Your task to perform on an android device: change your default location settings in chrome Image 0: 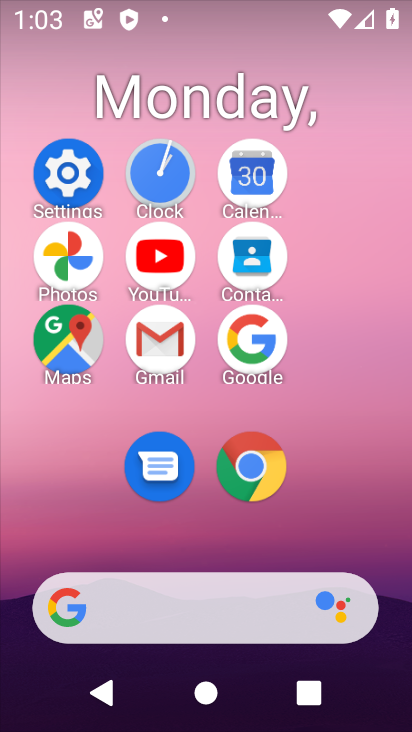
Step 0: click (265, 463)
Your task to perform on an android device: change your default location settings in chrome Image 1: 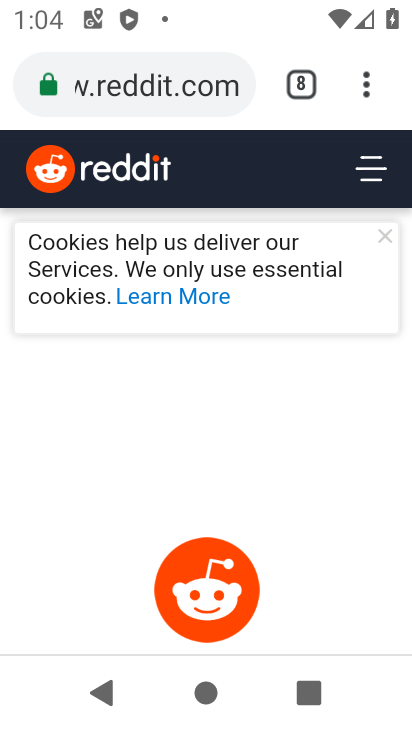
Step 1: click (385, 94)
Your task to perform on an android device: change your default location settings in chrome Image 2: 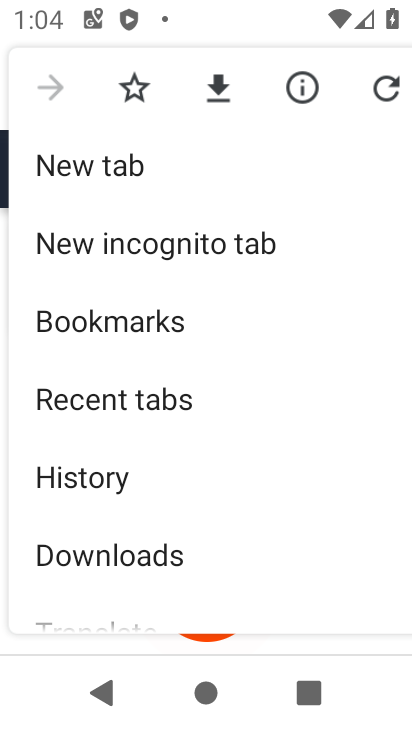
Step 2: drag from (261, 513) to (234, 141)
Your task to perform on an android device: change your default location settings in chrome Image 3: 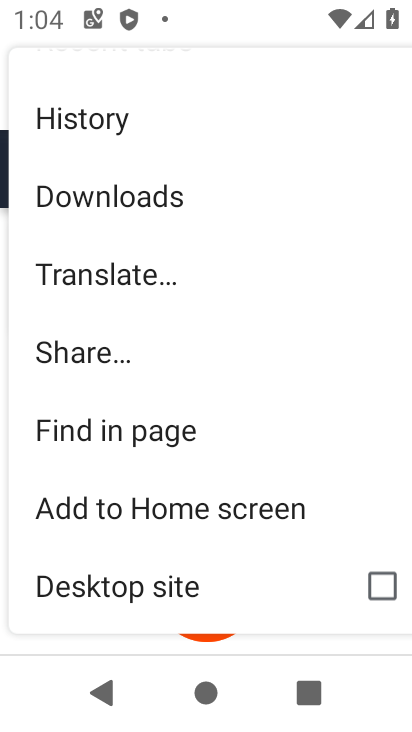
Step 3: drag from (195, 511) to (170, 142)
Your task to perform on an android device: change your default location settings in chrome Image 4: 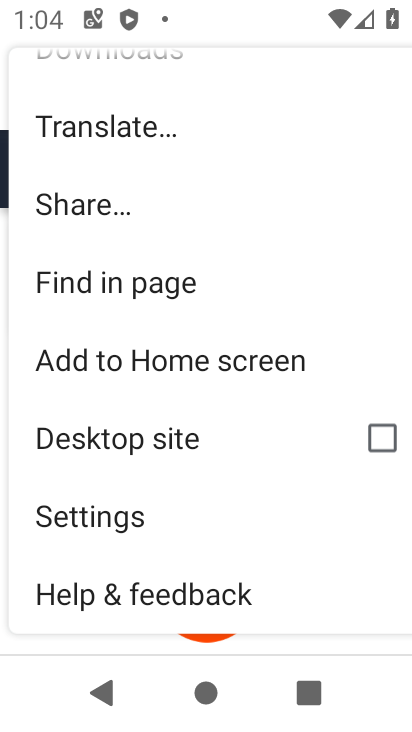
Step 4: click (143, 510)
Your task to perform on an android device: change your default location settings in chrome Image 5: 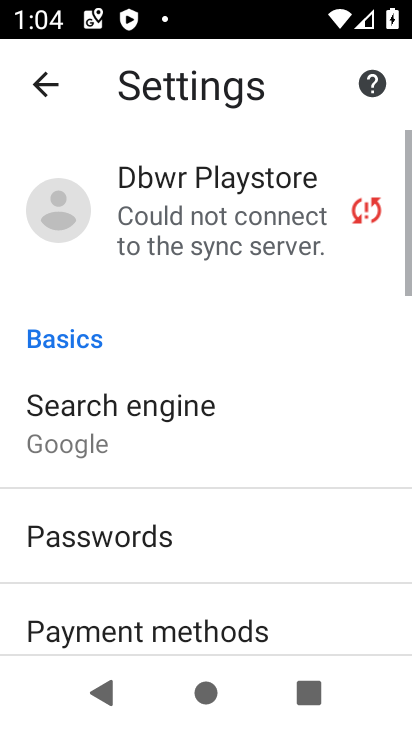
Step 5: drag from (175, 552) to (151, 71)
Your task to perform on an android device: change your default location settings in chrome Image 6: 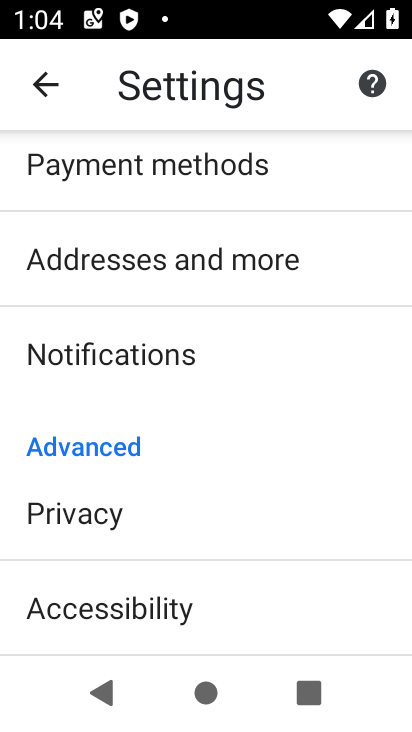
Step 6: drag from (183, 573) to (168, 179)
Your task to perform on an android device: change your default location settings in chrome Image 7: 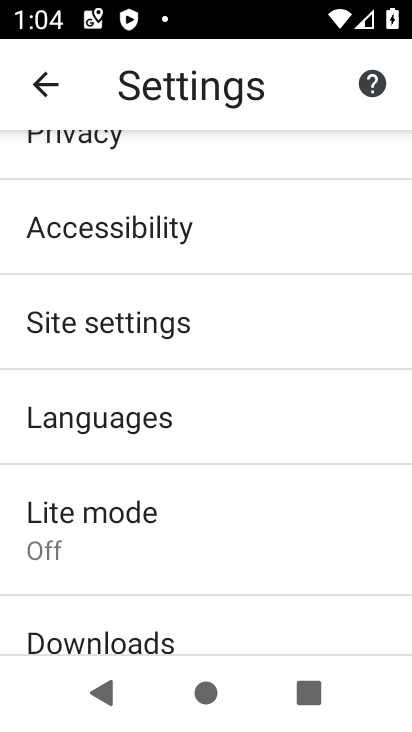
Step 7: click (198, 319)
Your task to perform on an android device: change your default location settings in chrome Image 8: 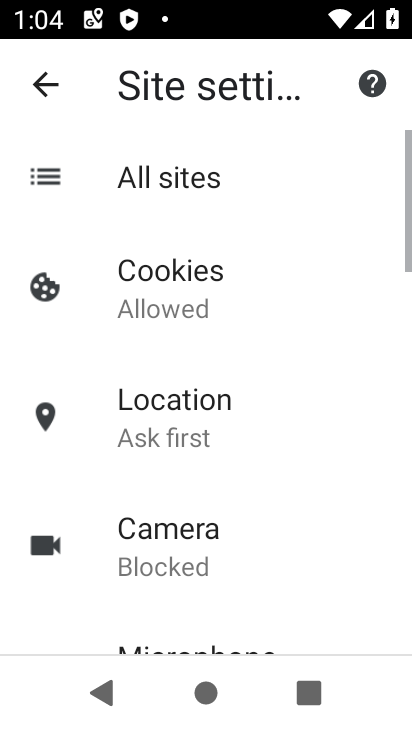
Step 8: click (240, 414)
Your task to perform on an android device: change your default location settings in chrome Image 9: 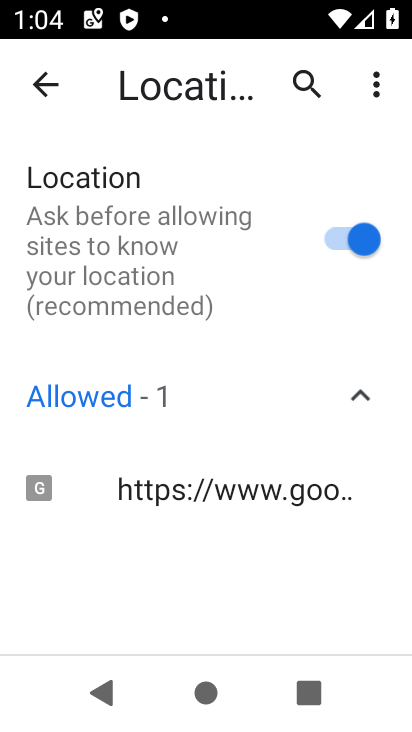
Step 9: click (358, 225)
Your task to perform on an android device: change your default location settings in chrome Image 10: 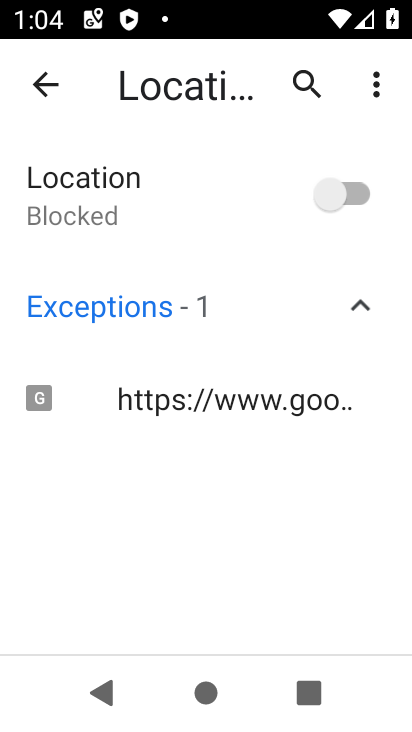
Step 10: task complete